Your task to perform on an android device: clear history in the chrome app Image 0: 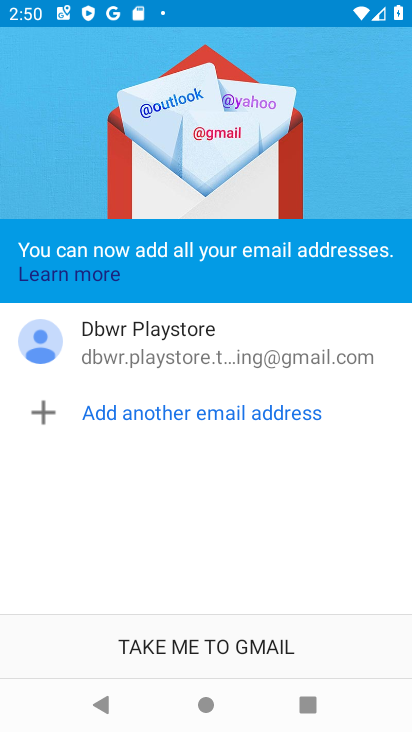
Step 0: press home button
Your task to perform on an android device: clear history in the chrome app Image 1: 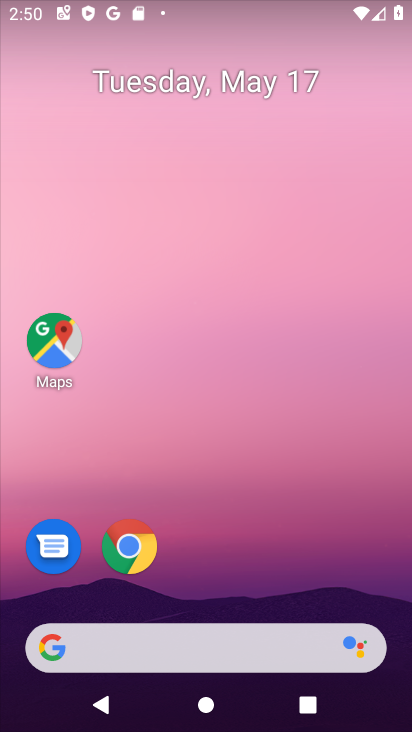
Step 1: click (128, 552)
Your task to perform on an android device: clear history in the chrome app Image 2: 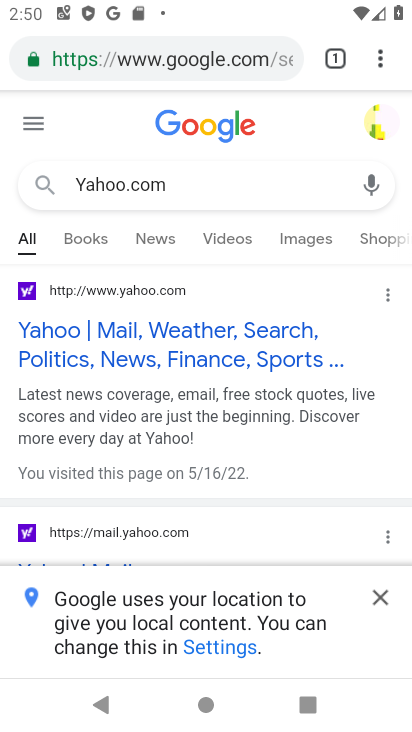
Step 2: click (377, 60)
Your task to perform on an android device: clear history in the chrome app Image 3: 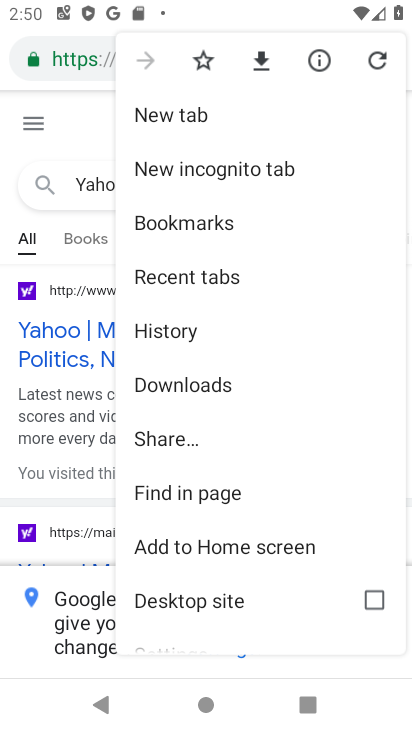
Step 3: click (182, 331)
Your task to perform on an android device: clear history in the chrome app Image 4: 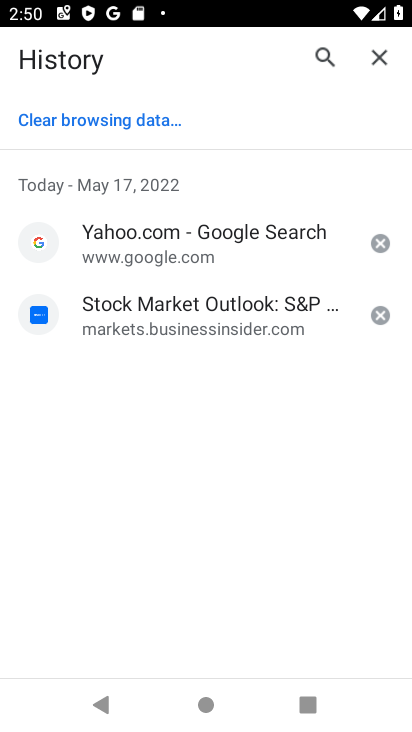
Step 4: click (87, 125)
Your task to perform on an android device: clear history in the chrome app Image 5: 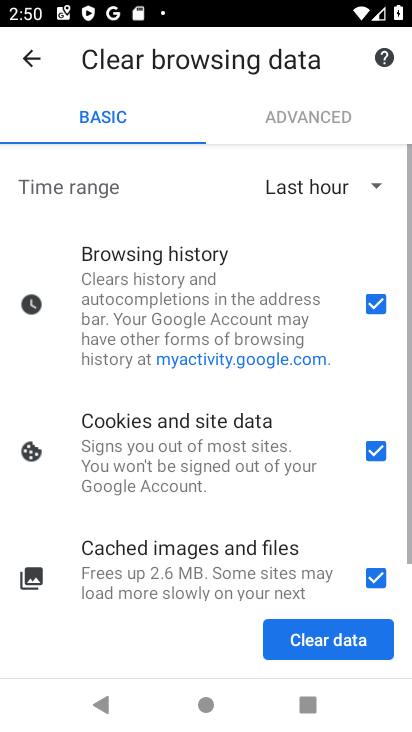
Step 5: click (301, 646)
Your task to perform on an android device: clear history in the chrome app Image 6: 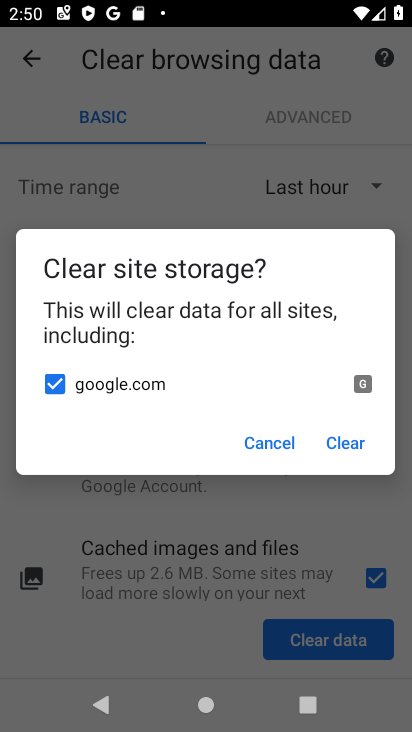
Step 6: click (332, 437)
Your task to perform on an android device: clear history in the chrome app Image 7: 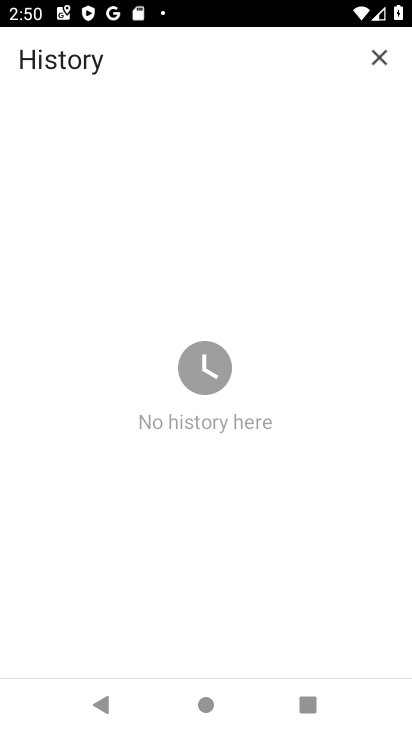
Step 7: task complete